Your task to perform on an android device: manage bookmarks in the chrome app Image 0: 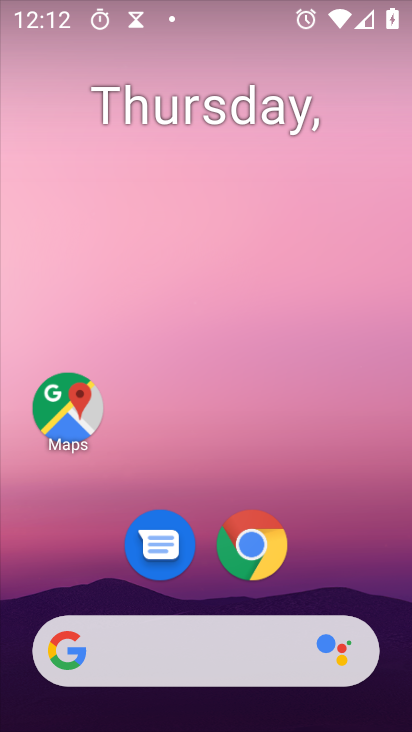
Step 0: press home button
Your task to perform on an android device: manage bookmarks in the chrome app Image 1: 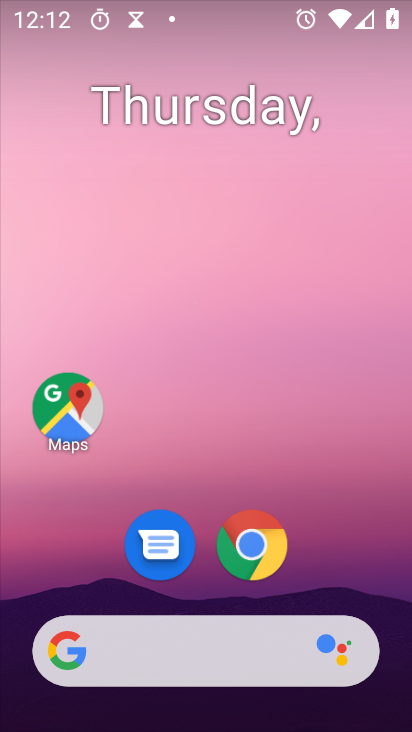
Step 1: click (258, 546)
Your task to perform on an android device: manage bookmarks in the chrome app Image 2: 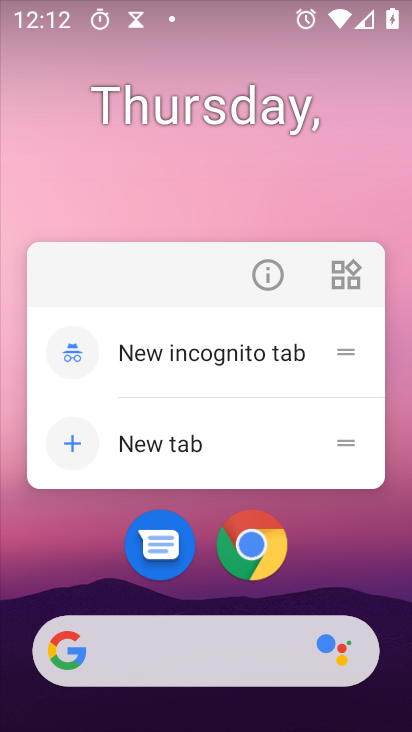
Step 2: click (253, 551)
Your task to perform on an android device: manage bookmarks in the chrome app Image 3: 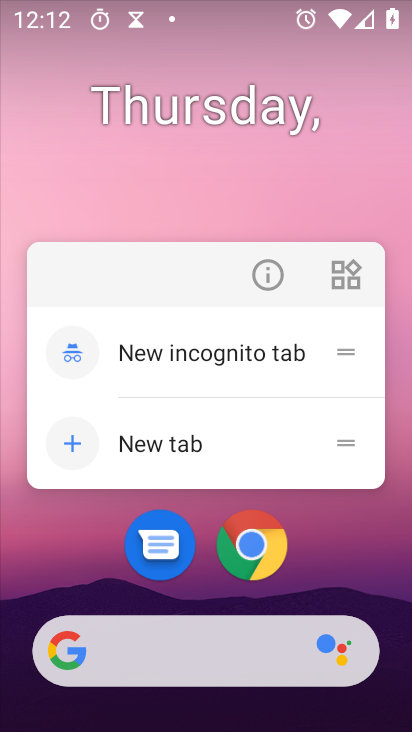
Step 3: click (244, 554)
Your task to perform on an android device: manage bookmarks in the chrome app Image 4: 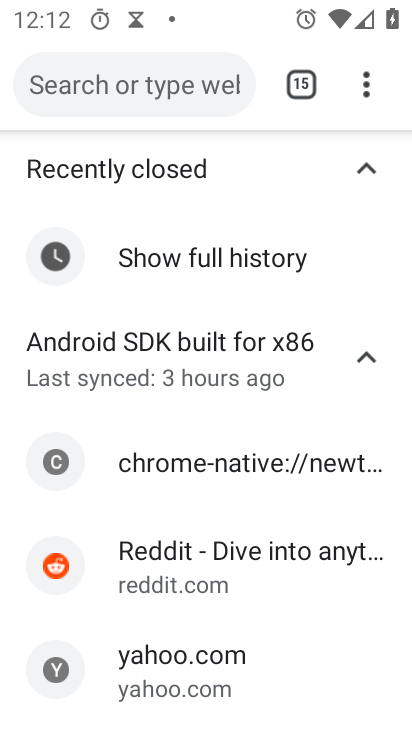
Step 4: drag from (368, 90) to (186, 337)
Your task to perform on an android device: manage bookmarks in the chrome app Image 5: 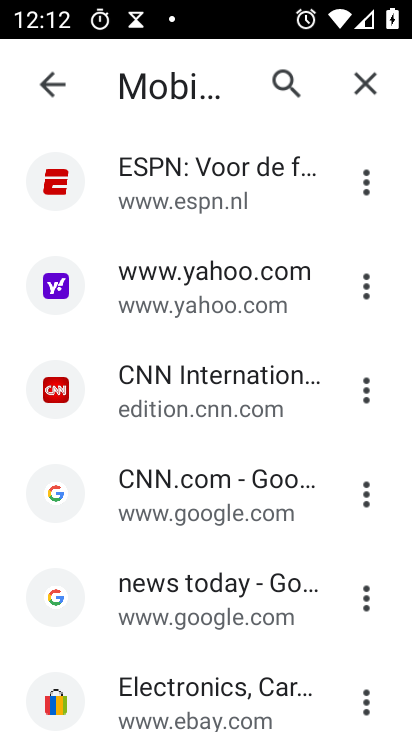
Step 5: click (363, 285)
Your task to perform on an android device: manage bookmarks in the chrome app Image 6: 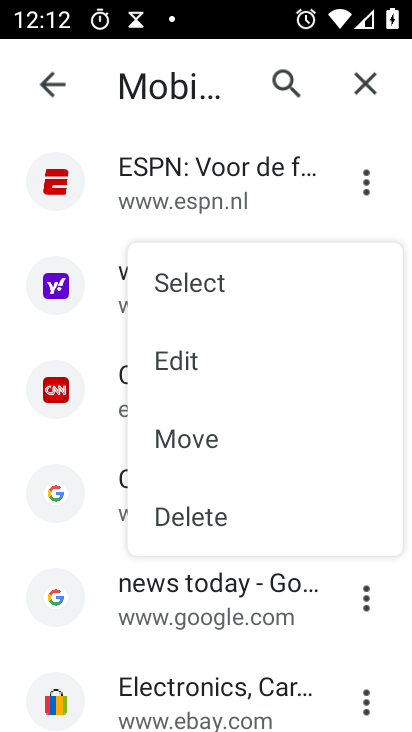
Step 6: click (227, 512)
Your task to perform on an android device: manage bookmarks in the chrome app Image 7: 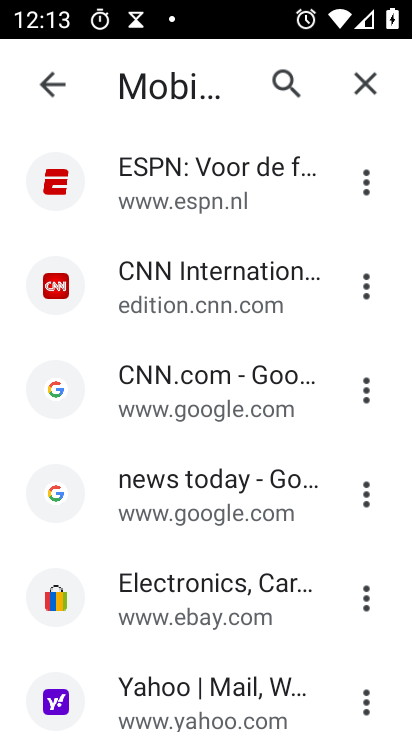
Step 7: task complete